Your task to perform on an android device: What is the news today? Image 0: 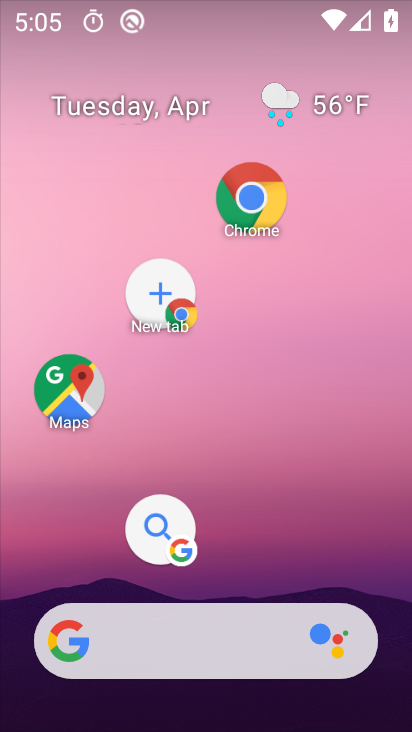
Step 0: drag from (199, 599) to (260, 208)
Your task to perform on an android device: What is the news today? Image 1: 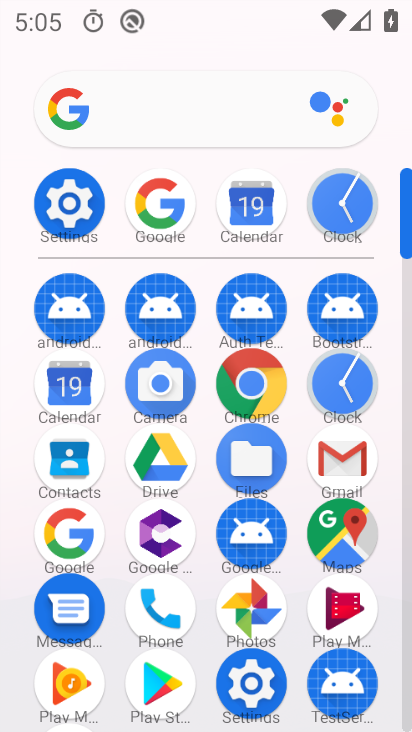
Step 1: drag from (114, 628) to (147, 324)
Your task to perform on an android device: What is the news today? Image 2: 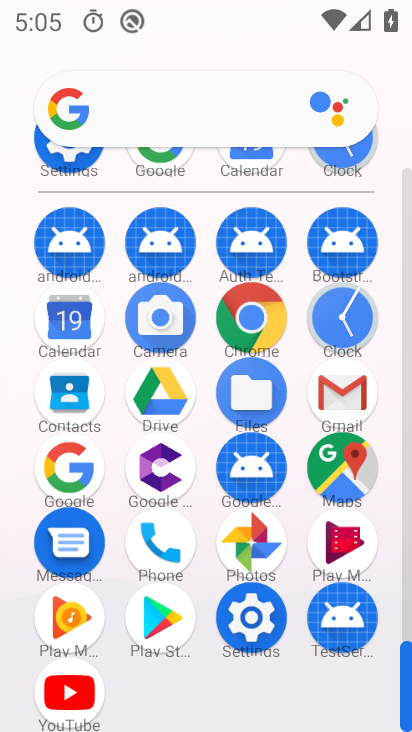
Step 2: click (66, 458)
Your task to perform on an android device: What is the news today? Image 3: 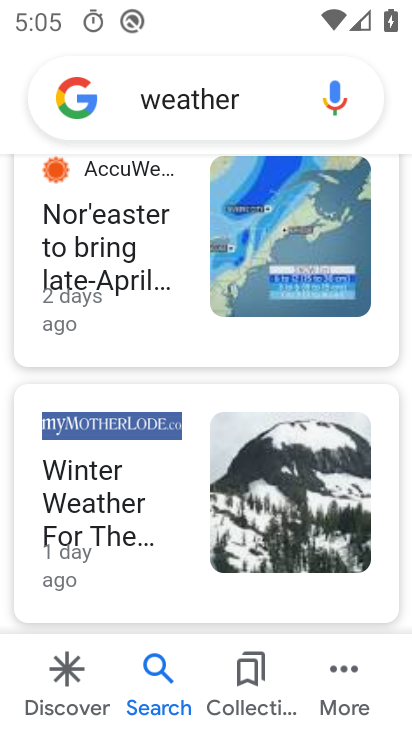
Step 3: click (196, 106)
Your task to perform on an android device: What is the news today? Image 4: 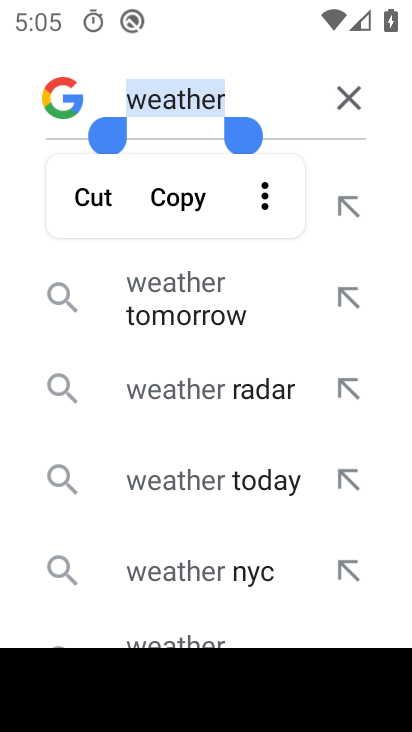
Step 4: drag from (203, 585) to (248, 280)
Your task to perform on an android device: What is the news today? Image 5: 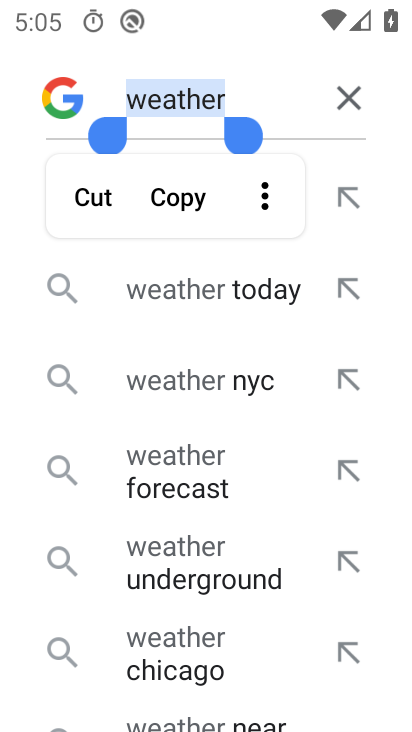
Step 5: click (356, 104)
Your task to perform on an android device: What is the news today? Image 6: 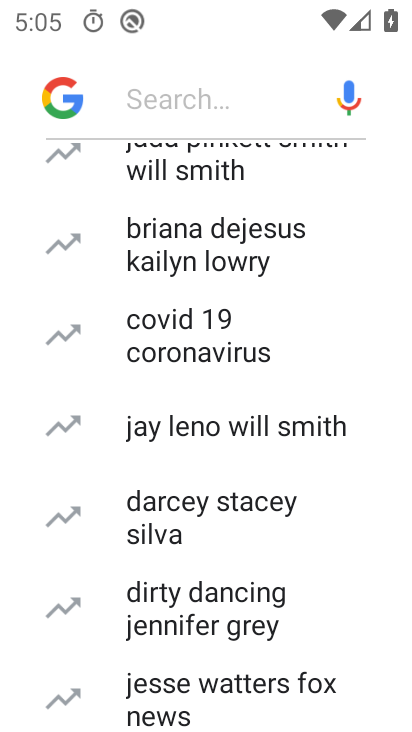
Step 6: drag from (209, 637) to (275, 313)
Your task to perform on an android device: What is the news today? Image 7: 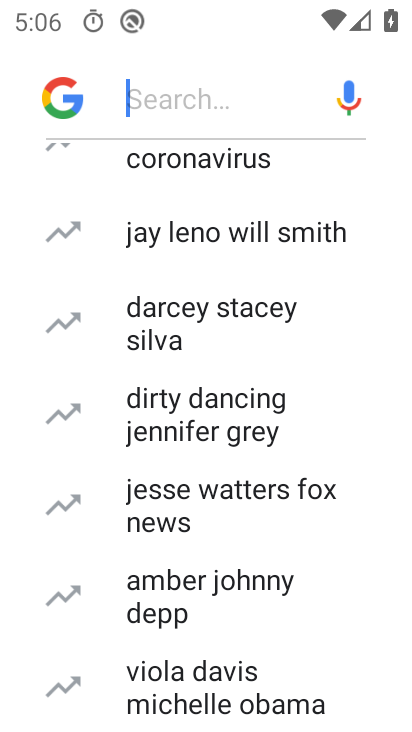
Step 7: type "news today"
Your task to perform on an android device: What is the news today? Image 8: 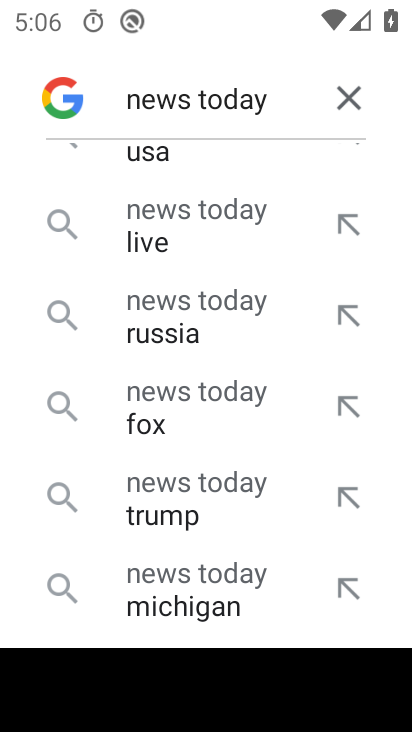
Step 8: click (176, 228)
Your task to perform on an android device: What is the news today? Image 9: 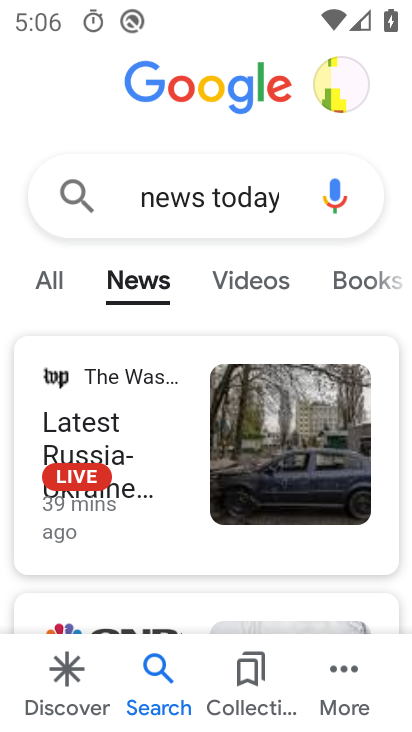
Step 9: task complete